Your task to perform on an android device: clear history in the chrome app Image 0: 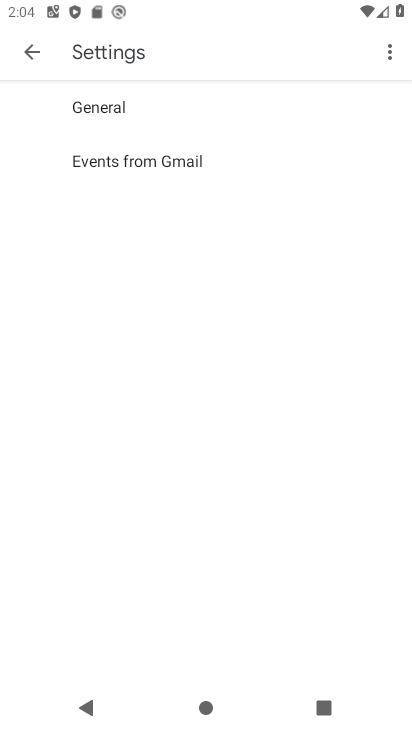
Step 0: press home button
Your task to perform on an android device: clear history in the chrome app Image 1: 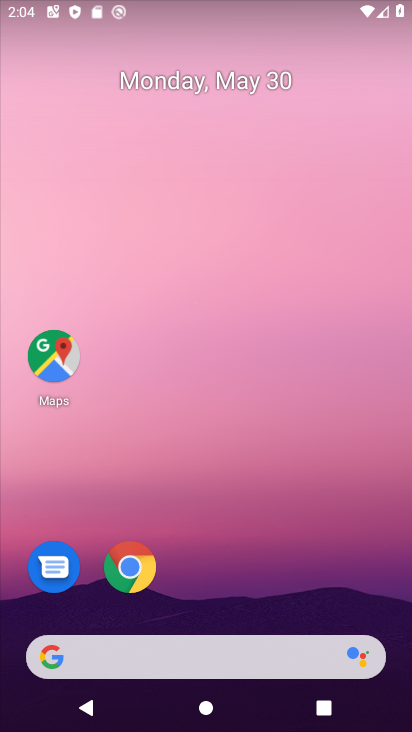
Step 1: click (116, 579)
Your task to perform on an android device: clear history in the chrome app Image 2: 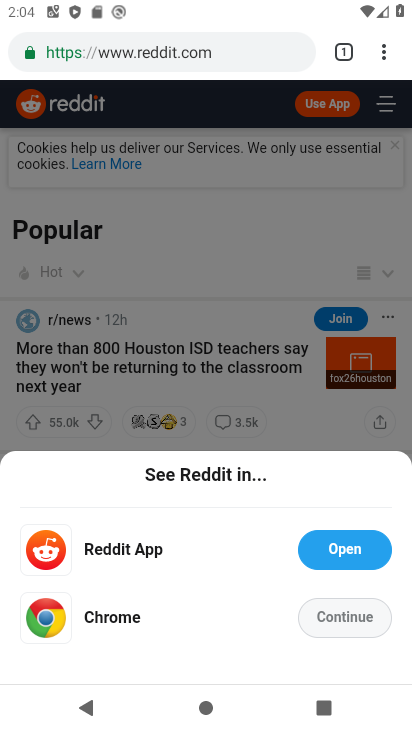
Step 2: click (387, 61)
Your task to perform on an android device: clear history in the chrome app Image 3: 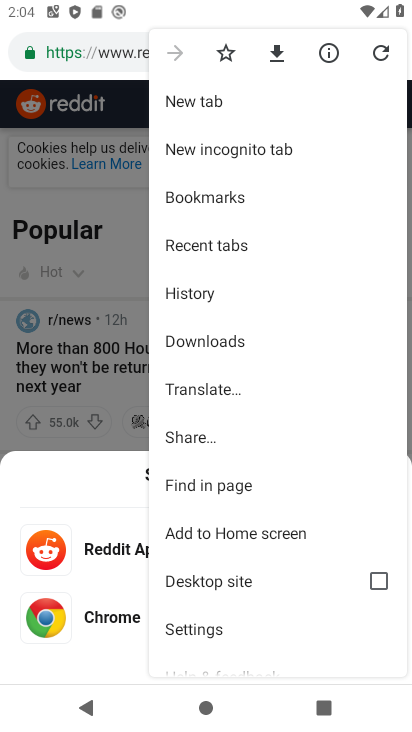
Step 3: click (213, 634)
Your task to perform on an android device: clear history in the chrome app Image 4: 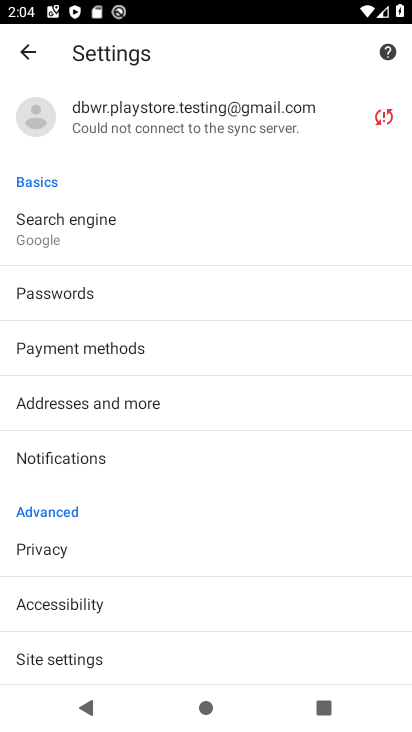
Step 4: drag from (101, 543) to (102, 311)
Your task to perform on an android device: clear history in the chrome app Image 5: 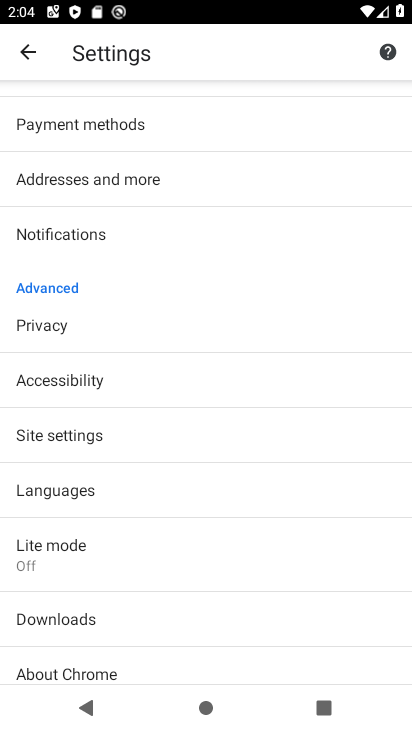
Step 5: click (29, 51)
Your task to perform on an android device: clear history in the chrome app Image 6: 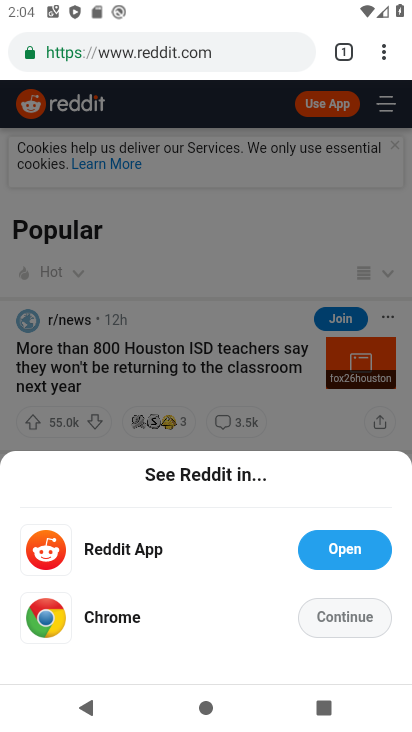
Step 6: click (377, 30)
Your task to perform on an android device: clear history in the chrome app Image 7: 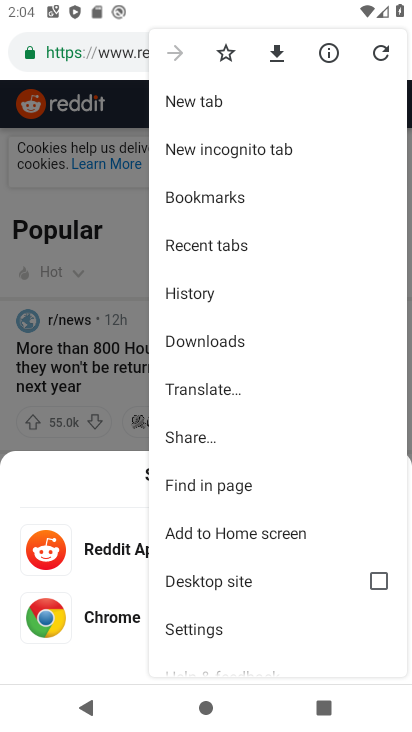
Step 7: click (220, 292)
Your task to perform on an android device: clear history in the chrome app Image 8: 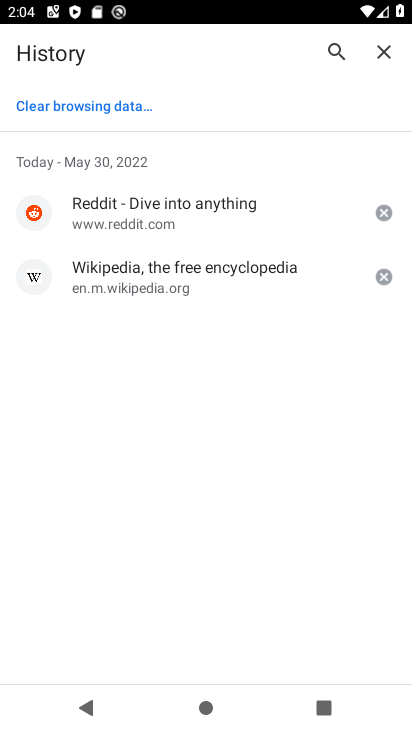
Step 8: click (93, 103)
Your task to perform on an android device: clear history in the chrome app Image 9: 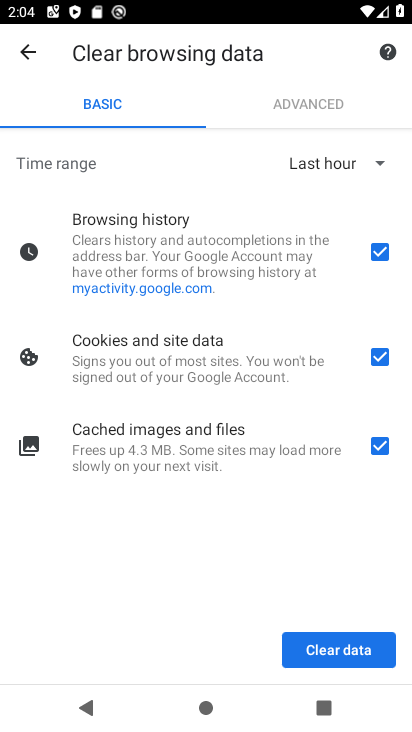
Step 9: click (383, 360)
Your task to perform on an android device: clear history in the chrome app Image 10: 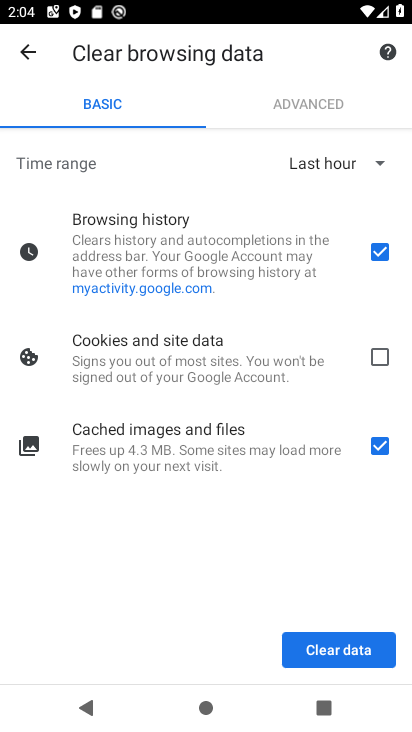
Step 10: click (384, 453)
Your task to perform on an android device: clear history in the chrome app Image 11: 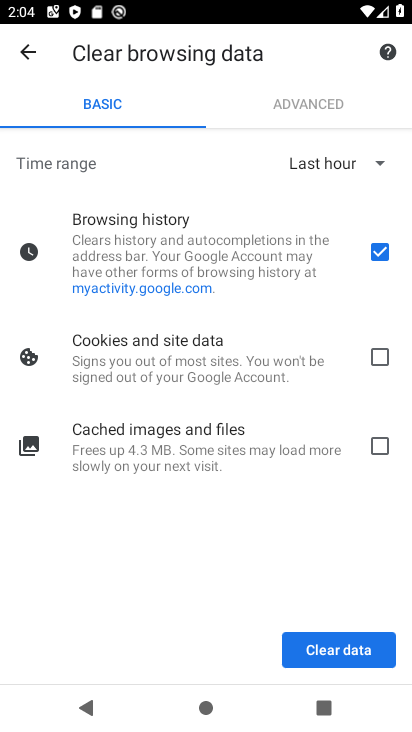
Step 11: click (338, 639)
Your task to perform on an android device: clear history in the chrome app Image 12: 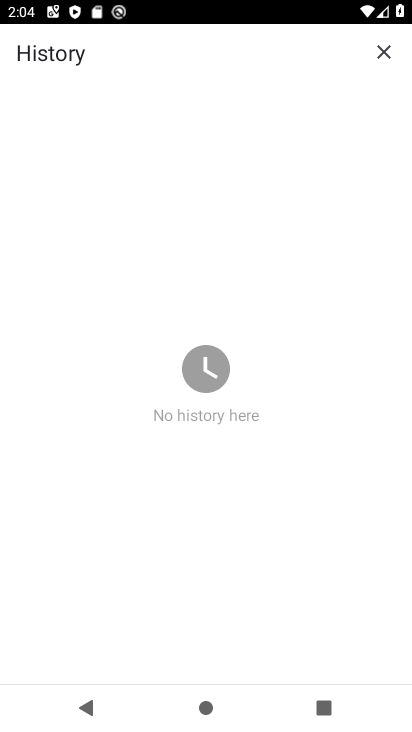
Step 12: task complete